Your task to perform on an android device: Clear all items from cart on ebay. Search for "bose soundlink mini" on ebay, select the first entry, and add it to the cart. Image 0: 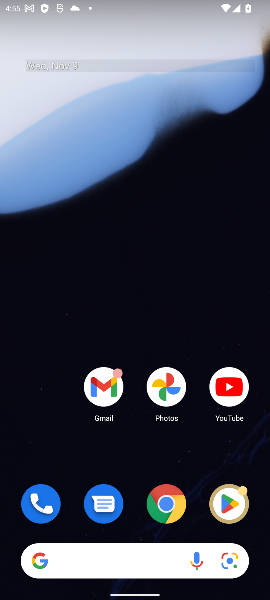
Step 0: click (154, 555)
Your task to perform on an android device: Clear all items from cart on ebay. Search for "bose soundlink mini" on ebay, select the first entry, and add it to the cart. Image 1: 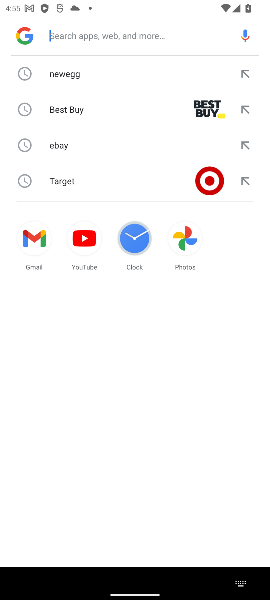
Step 1: click (86, 147)
Your task to perform on an android device: Clear all items from cart on ebay. Search for "bose soundlink mini" on ebay, select the first entry, and add it to the cart. Image 2: 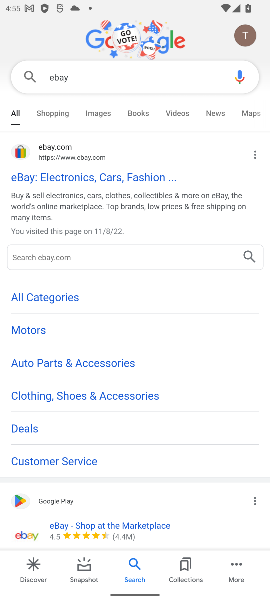
Step 2: click (53, 150)
Your task to perform on an android device: Clear all items from cart on ebay. Search for "bose soundlink mini" on ebay, select the first entry, and add it to the cart. Image 3: 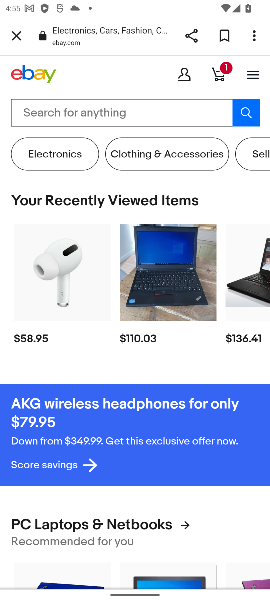
Step 3: click (116, 108)
Your task to perform on an android device: Clear all items from cart on ebay. Search for "bose soundlink mini" on ebay, select the first entry, and add it to the cart. Image 4: 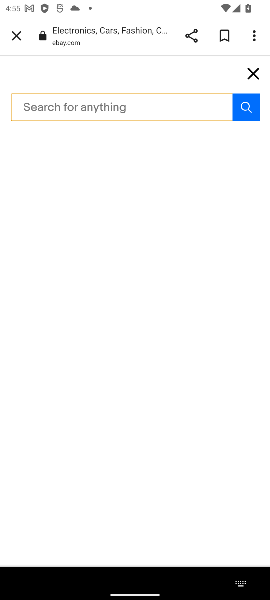
Step 4: type "bose soundlink mini"
Your task to perform on an android device: Clear all items from cart on ebay. Search for "bose soundlink mini" on ebay, select the first entry, and add it to the cart. Image 5: 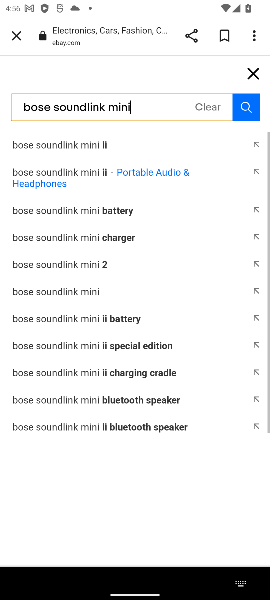
Step 5: click (64, 292)
Your task to perform on an android device: Clear all items from cart on ebay. Search for "bose soundlink mini" on ebay, select the first entry, and add it to the cart. Image 6: 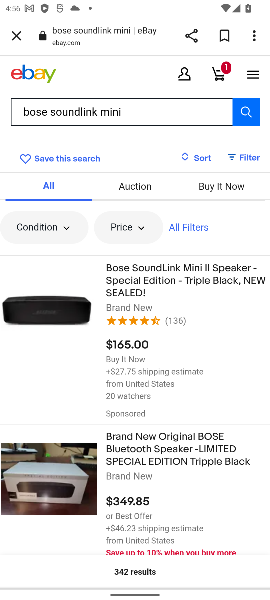
Step 6: click (129, 292)
Your task to perform on an android device: Clear all items from cart on ebay. Search for "bose soundlink mini" on ebay, select the first entry, and add it to the cart. Image 7: 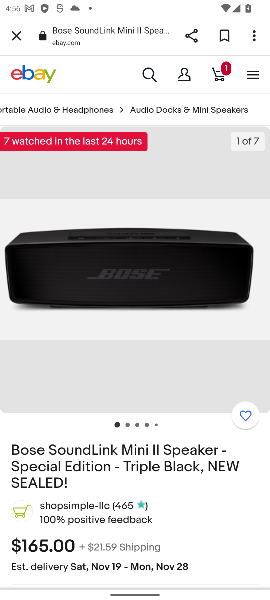
Step 7: drag from (149, 463) to (149, 335)
Your task to perform on an android device: Clear all items from cart on ebay. Search for "bose soundlink mini" on ebay, select the first entry, and add it to the cart. Image 8: 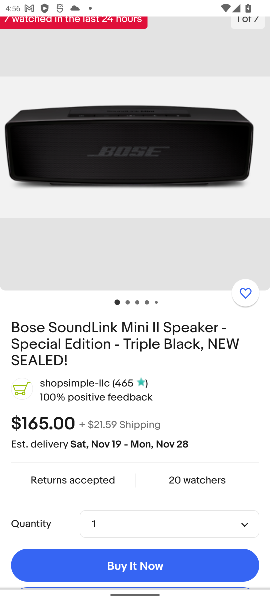
Step 8: drag from (155, 513) to (155, 347)
Your task to perform on an android device: Clear all items from cart on ebay. Search for "bose soundlink mini" on ebay, select the first entry, and add it to the cart. Image 9: 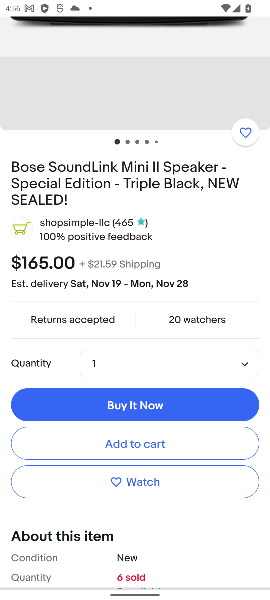
Step 9: click (124, 445)
Your task to perform on an android device: Clear all items from cart on ebay. Search for "bose soundlink mini" on ebay, select the first entry, and add it to the cart. Image 10: 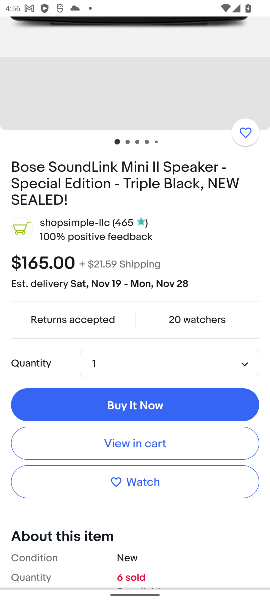
Step 10: click (124, 445)
Your task to perform on an android device: Clear all items from cart on ebay. Search for "bose soundlink mini" on ebay, select the first entry, and add it to the cart. Image 11: 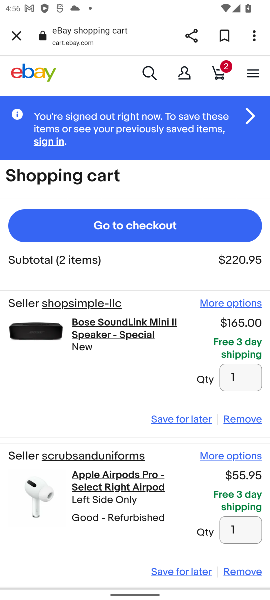
Step 11: click (132, 231)
Your task to perform on an android device: Clear all items from cart on ebay. Search for "bose soundlink mini" on ebay, select the first entry, and add it to the cart. Image 12: 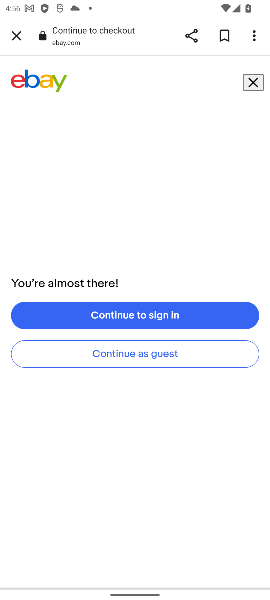
Step 12: task complete